Your task to perform on an android device: delete location history Image 0: 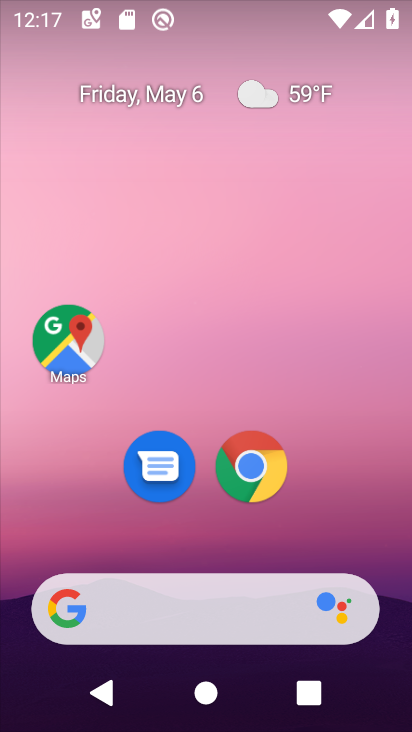
Step 0: click (61, 337)
Your task to perform on an android device: delete location history Image 1: 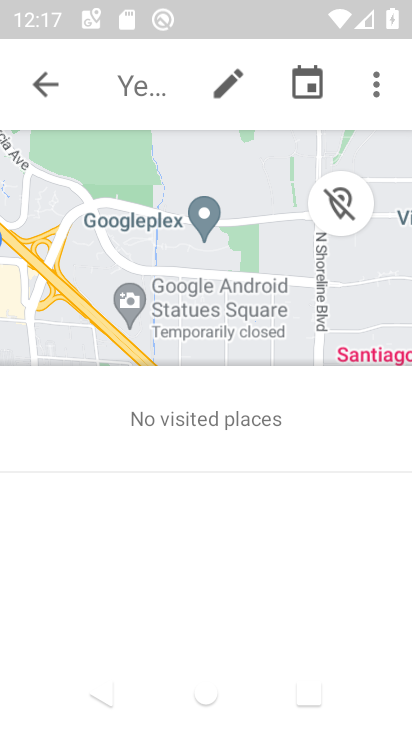
Step 1: click (385, 93)
Your task to perform on an android device: delete location history Image 2: 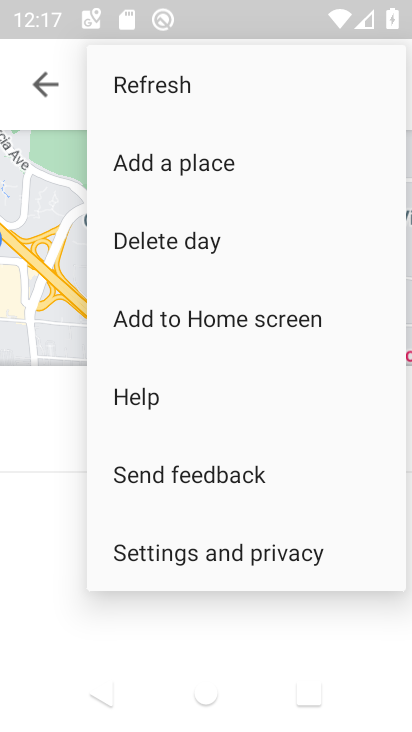
Step 2: click (268, 553)
Your task to perform on an android device: delete location history Image 3: 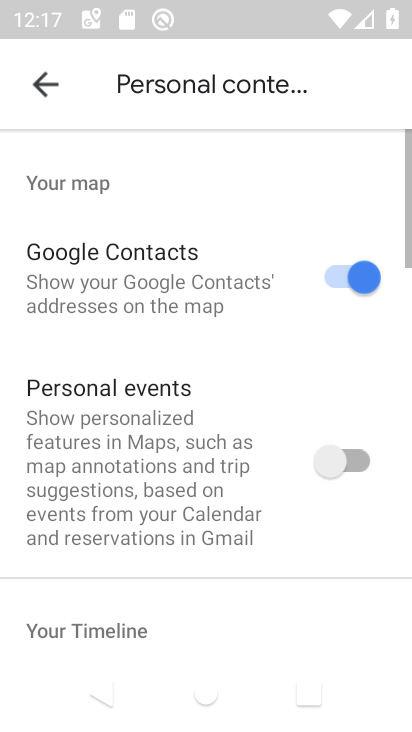
Step 3: drag from (261, 570) to (271, 211)
Your task to perform on an android device: delete location history Image 4: 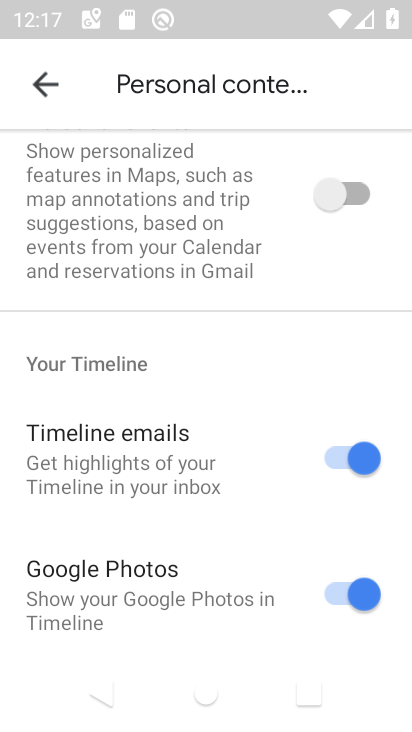
Step 4: drag from (290, 594) to (266, 306)
Your task to perform on an android device: delete location history Image 5: 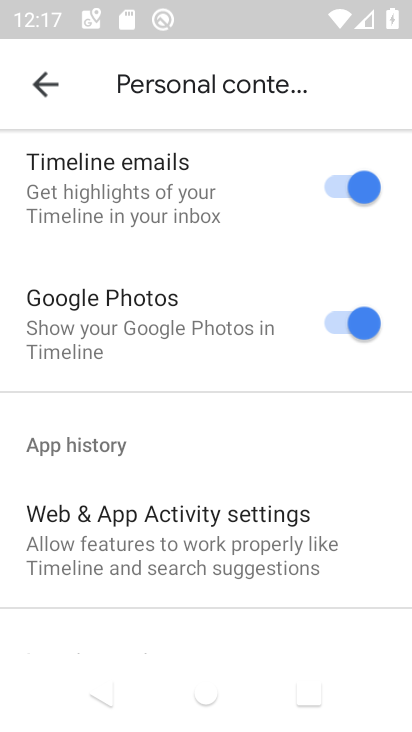
Step 5: drag from (296, 540) to (288, 192)
Your task to perform on an android device: delete location history Image 6: 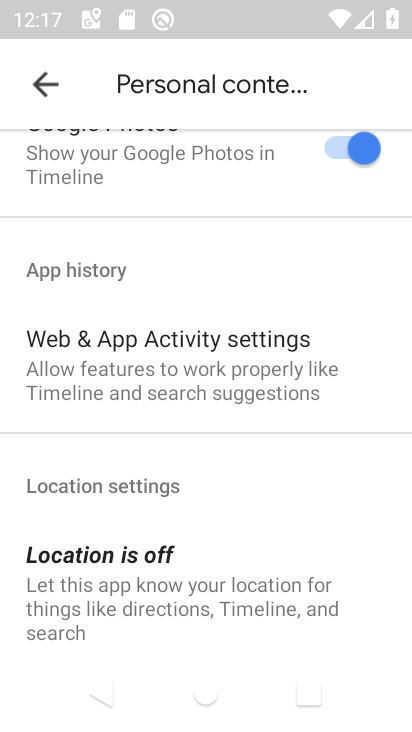
Step 6: drag from (294, 496) to (270, 175)
Your task to perform on an android device: delete location history Image 7: 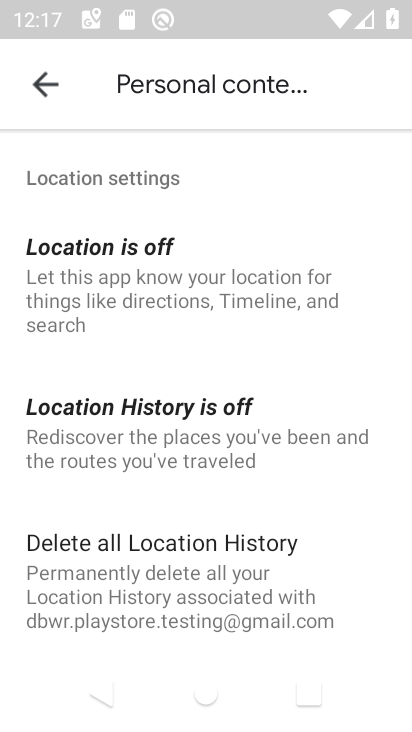
Step 7: click (238, 556)
Your task to perform on an android device: delete location history Image 8: 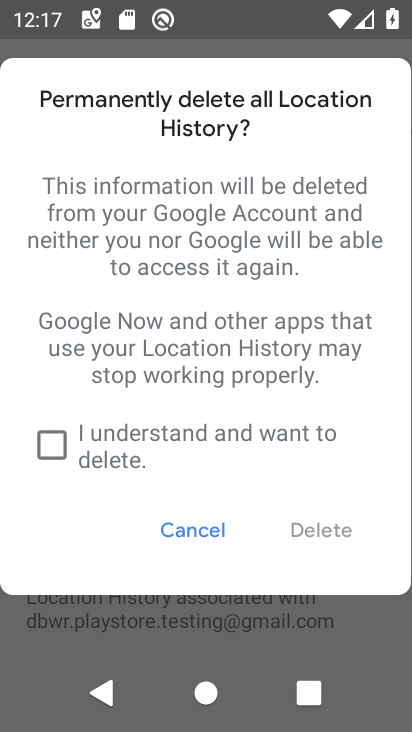
Step 8: click (237, 443)
Your task to perform on an android device: delete location history Image 9: 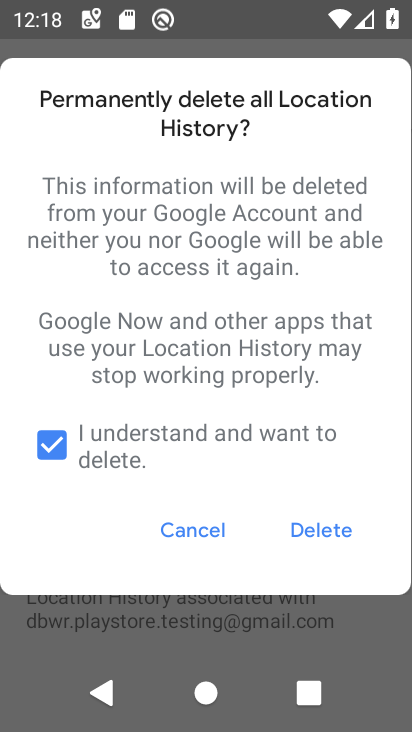
Step 9: click (328, 533)
Your task to perform on an android device: delete location history Image 10: 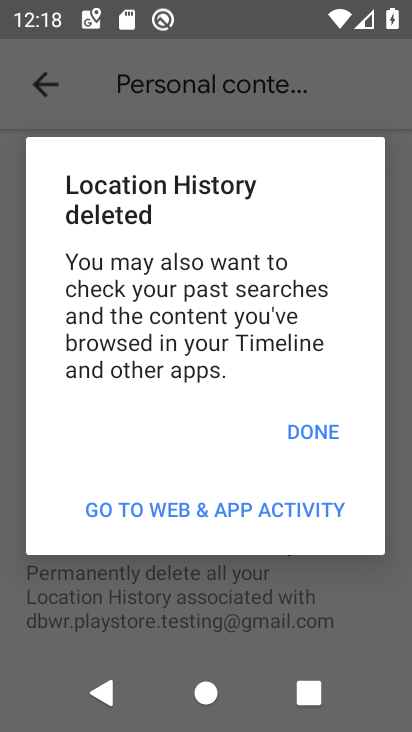
Step 10: click (323, 438)
Your task to perform on an android device: delete location history Image 11: 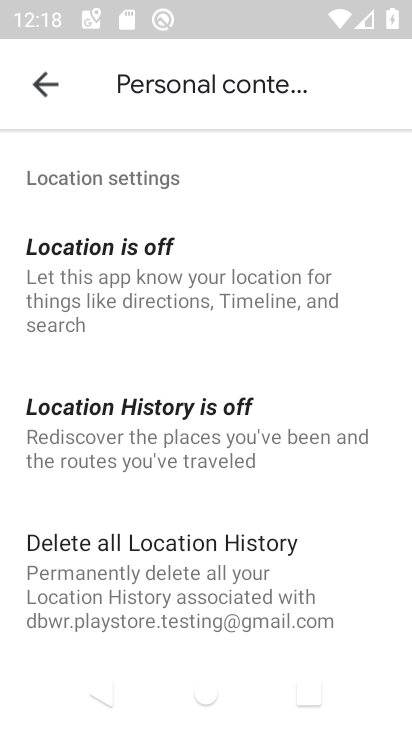
Step 11: task complete